Your task to perform on an android device: Open calendar and show me the fourth week of next month Image 0: 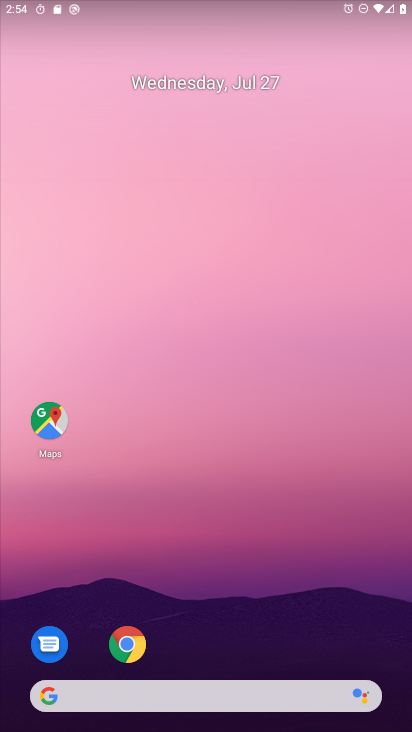
Step 0: drag from (197, 572) to (205, 1)
Your task to perform on an android device: Open calendar and show me the fourth week of next month Image 1: 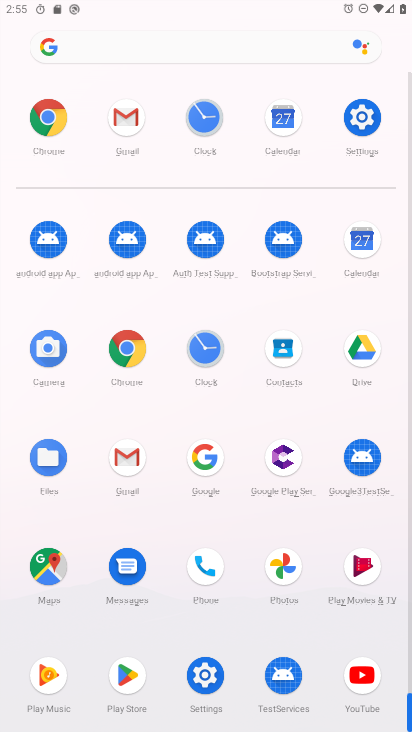
Step 1: click (364, 232)
Your task to perform on an android device: Open calendar and show me the fourth week of next month Image 2: 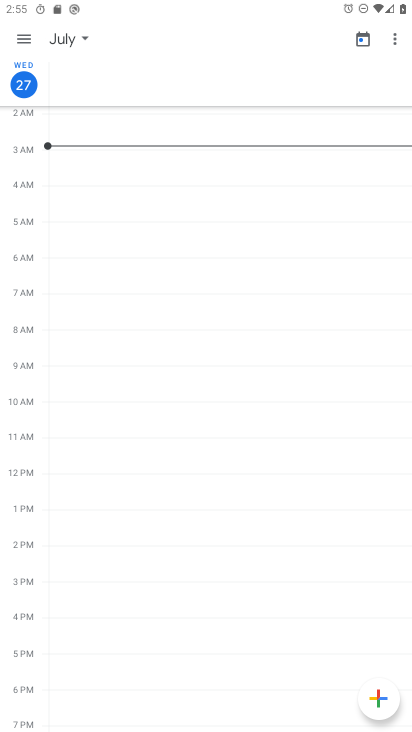
Step 2: click (86, 33)
Your task to perform on an android device: Open calendar and show me the fourth week of next month Image 3: 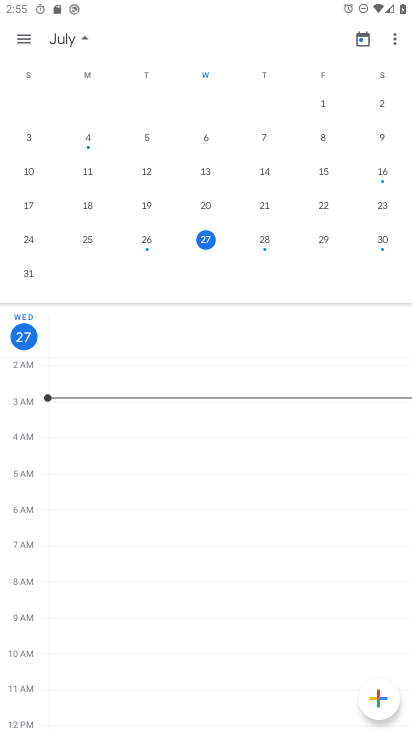
Step 3: drag from (342, 213) to (16, 252)
Your task to perform on an android device: Open calendar and show me the fourth week of next month Image 4: 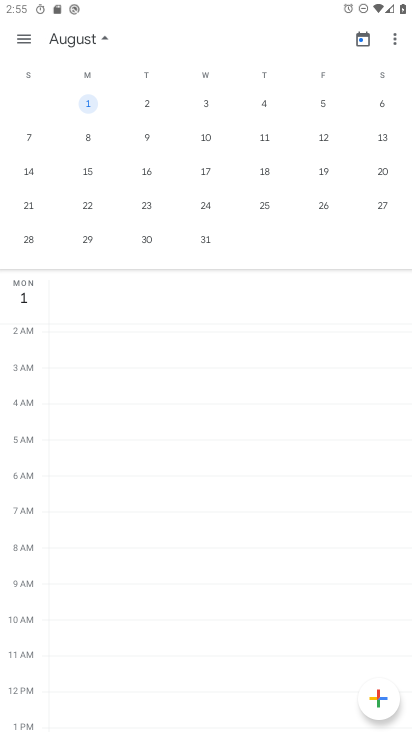
Step 4: click (264, 202)
Your task to perform on an android device: Open calendar and show me the fourth week of next month Image 5: 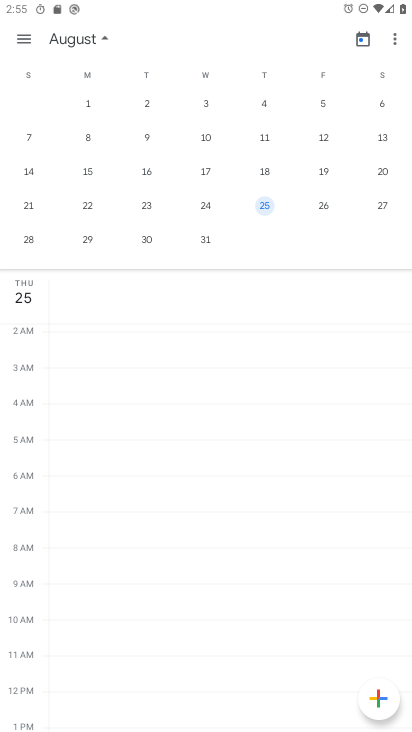
Step 5: task complete